Your task to perform on an android device: Search for vegetarian restaurants on Maps Image 0: 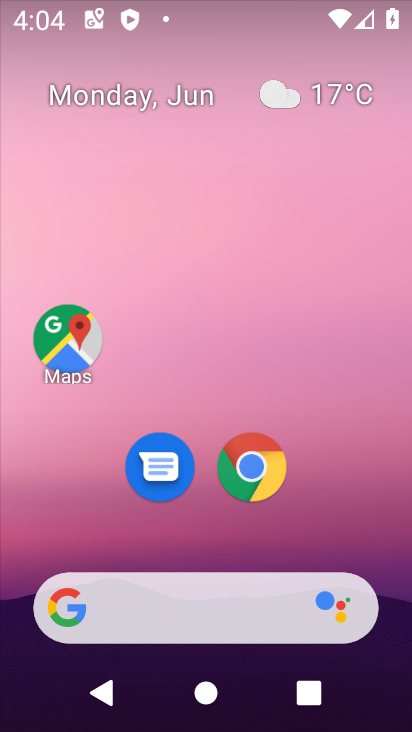
Step 0: click (63, 340)
Your task to perform on an android device: Search for vegetarian restaurants on Maps Image 1: 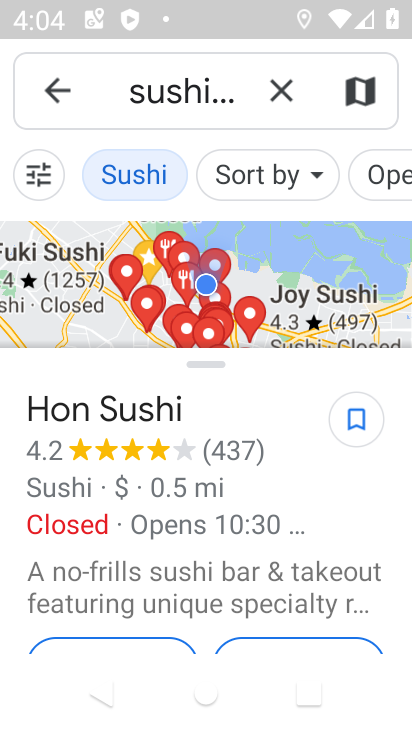
Step 1: click (154, 87)
Your task to perform on an android device: Search for vegetarian restaurants on Maps Image 2: 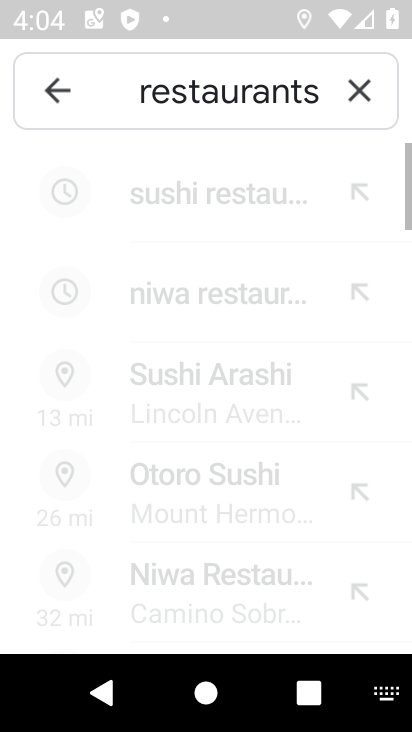
Step 2: click (361, 89)
Your task to perform on an android device: Search for vegetarian restaurants on Maps Image 3: 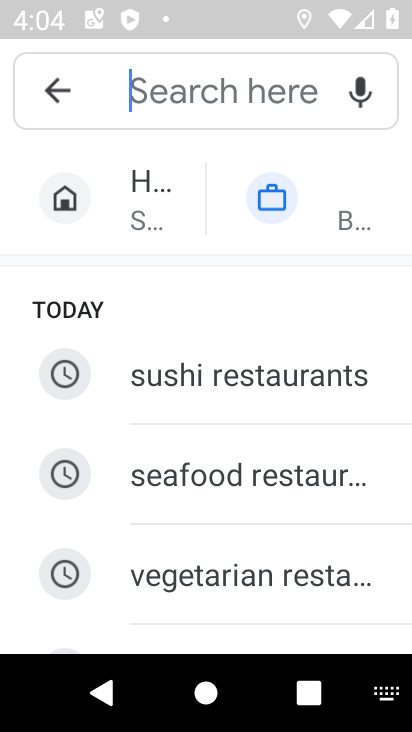
Step 3: type "Vegetarian restaurants"
Your task to perform on an android device: Search for vegetarian restaurants on Maps Image 4: 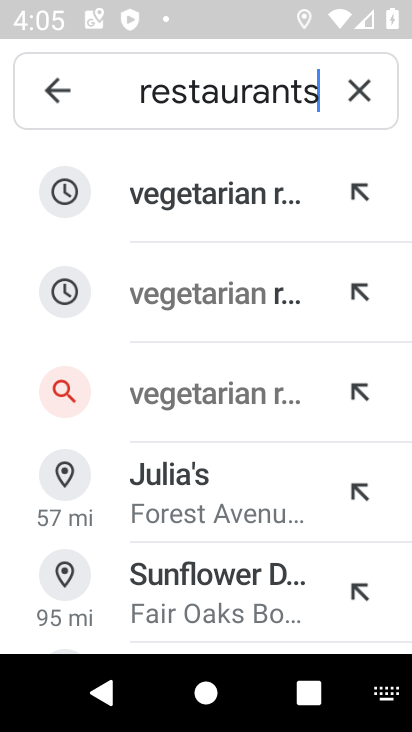
Step 4: click (201, 191)
Your task to perform on an android device: Search for vegetarian restaurants on Maps Image 5: 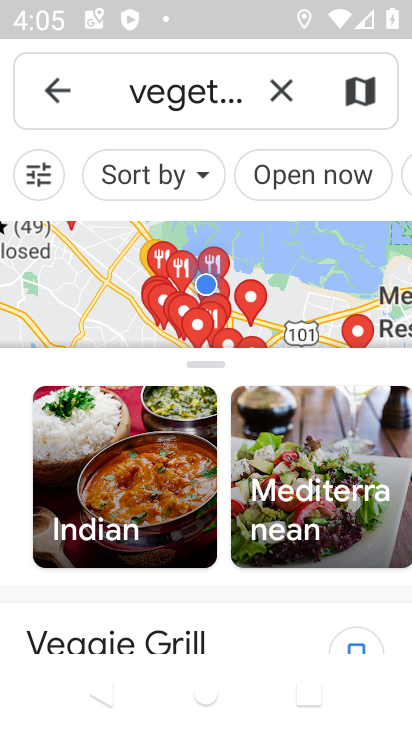
Step 5: task complete